Your task to perform on an android device: Search for pizza restaurants on Maps Image 0: 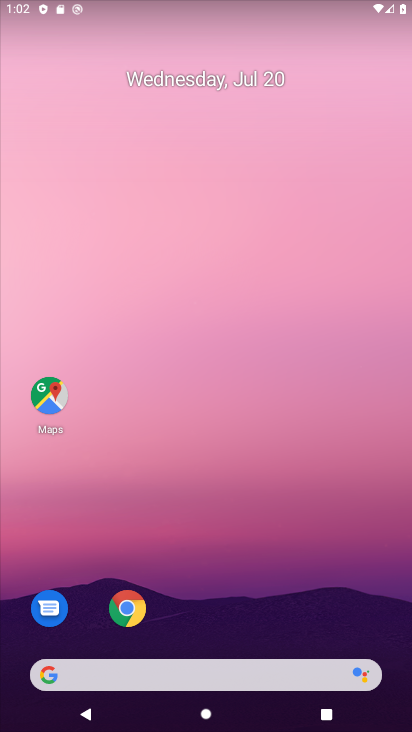
Step 0: drag from (251, 370) to (306, 75)
Your task to perform on an android device: Search for pizza restaurants on Maps Image 1: 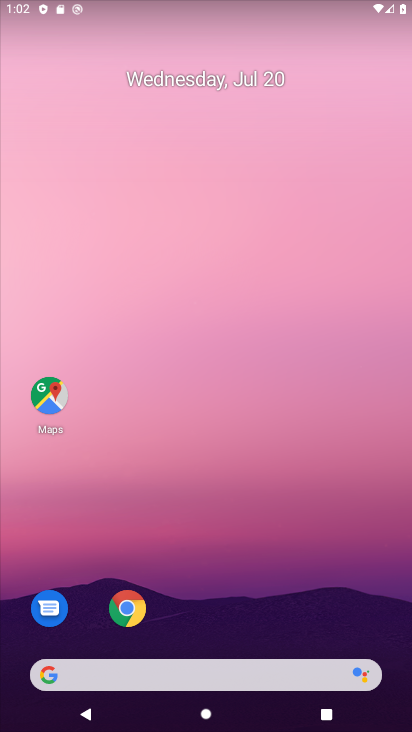
Step 1: drag from (265, 567) to (348, 33)
Your task to perform on an android device: Search for pizza restaurants on Maps Image 2: 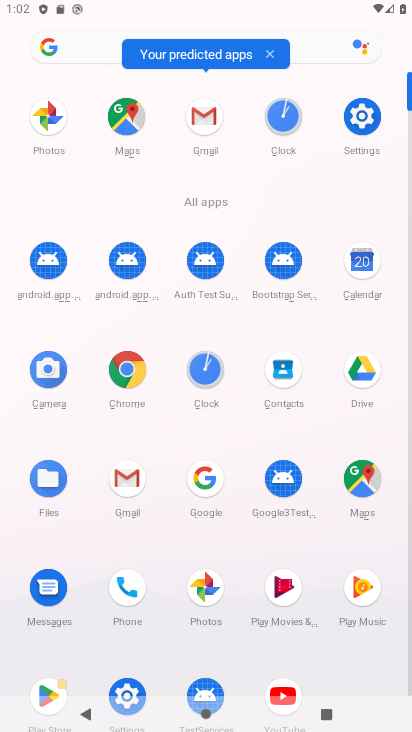
Step 2: click (367, 509)
Your task to perform on an android device: Search for pizza restaurants on Maps Image 3: 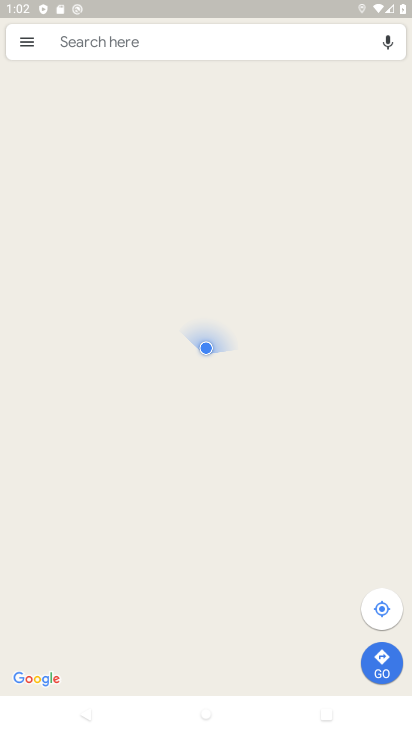
Step 3: click (166, 49)
Your task to perform on an android device: Search for pizza restaurants on Maps Image 4: 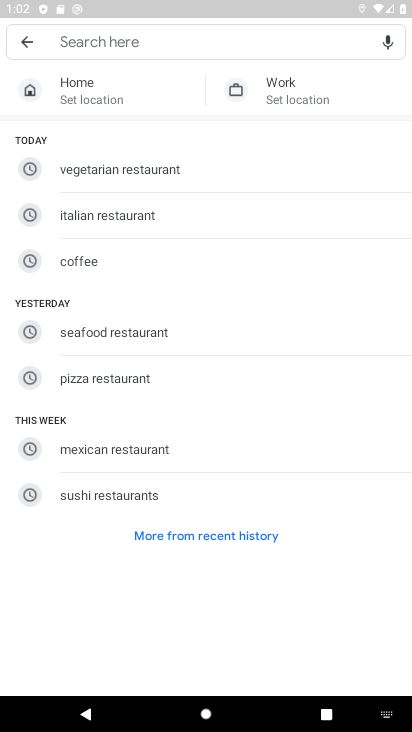
Step 4: type "Pizza restaurants"
Your task to perform on an android device: Search for pizza restaurants on Maps Image 5: 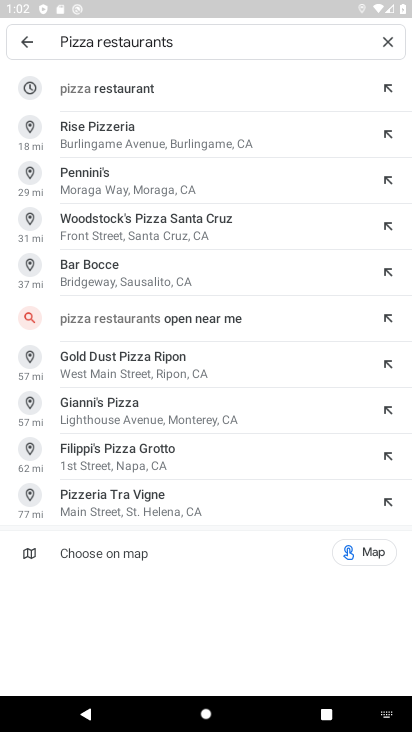
Step 5: click (223, 91)
Your task to perform on an android device: Search for pizza restaurants on Maps Image 6: 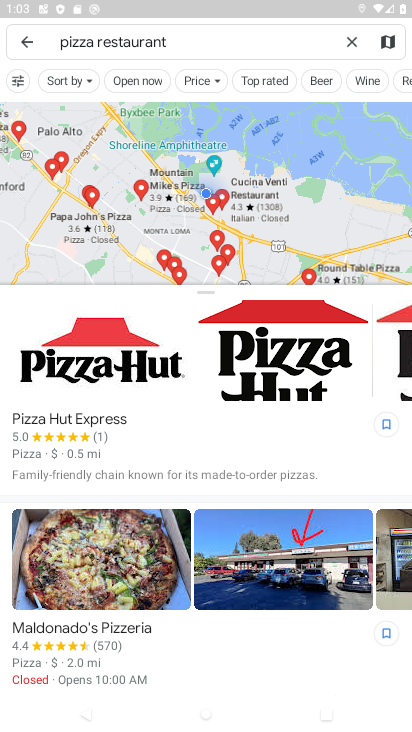
Step 6: task complete